Your task to perform on an android device: Search for Italian restaurants on Maps Image 0: 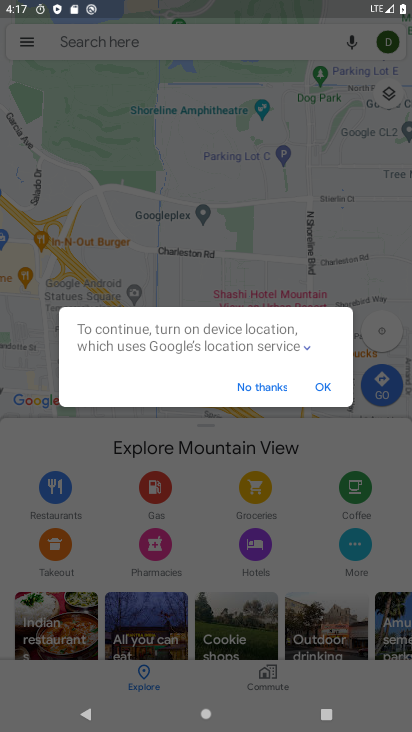
Step 0: press home button
Your task to perform on an android device: Search for Italian restaurants on Maps Image 1: 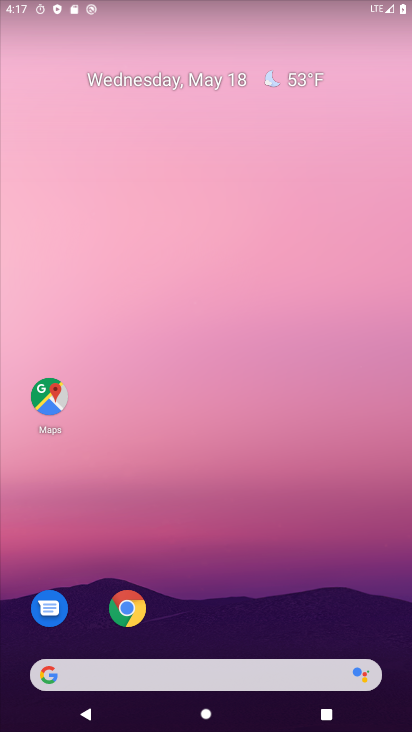
Step 1: drag from (316, 660) to (409, 26)
Your task to perform on an android device: Search for Italian restaurants on Maps Image 2: 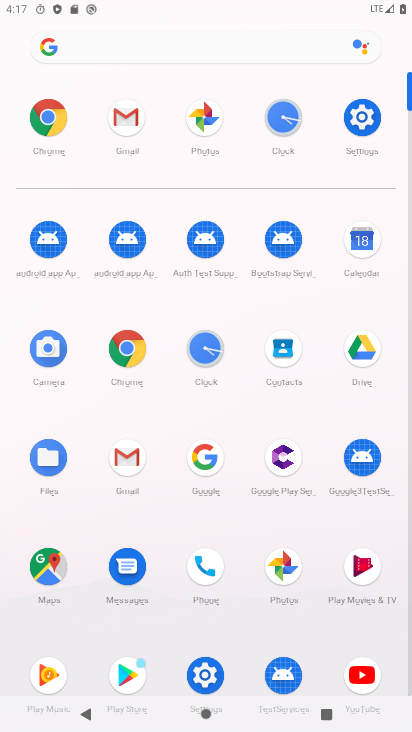
Step 2: click (47, 576)
Your task to perform on an android device: Search for Italian restaurants on Maps Image 3: 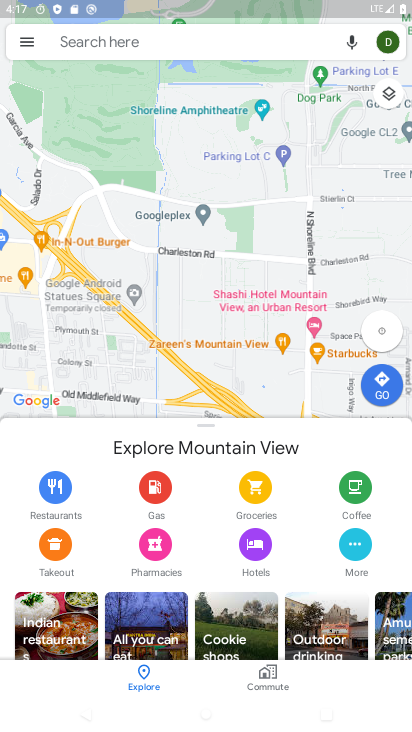
Step 3: click (118, 44)
Your task to perform on an android device: Search for Italian restaurants on Maps Image 4: 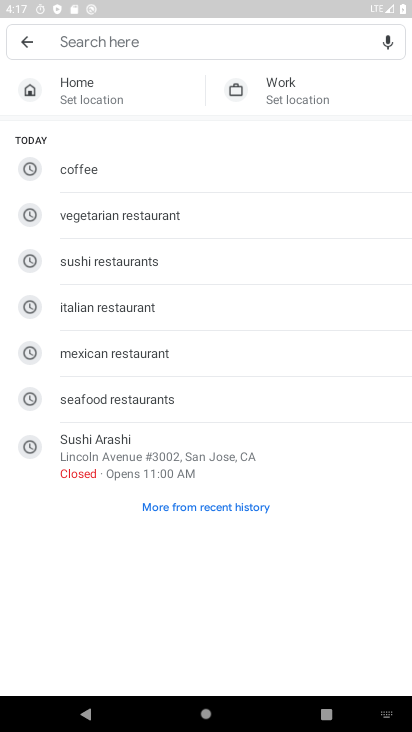
Step 4: click (134, 318)
Your task to perform on an android device: Search for Italian restaurants on Maps Image 5: 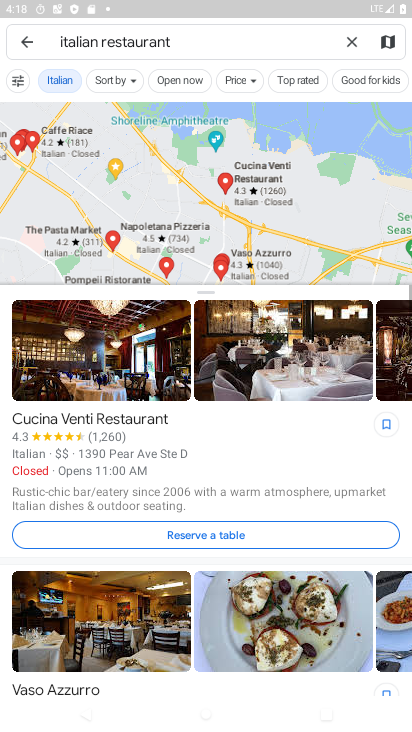
Step 5: task complete